Your task to perform on an android device: Open notification settings Image 0: 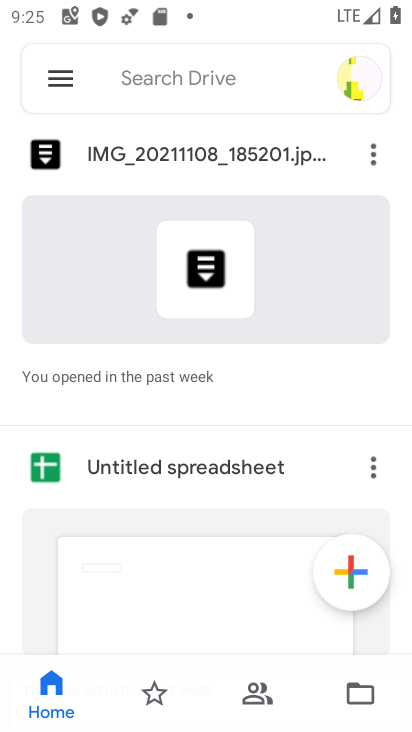
Step 0: press home button
Your task to perform on an android device: Open notification settings Image 1: 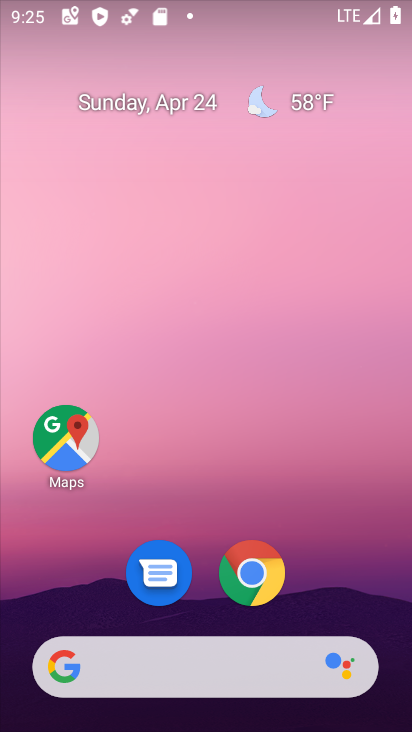
Step 1: drag from (365, 499) to (374, 78)
Your task to perform on an android device: Open notification settings Image 2: 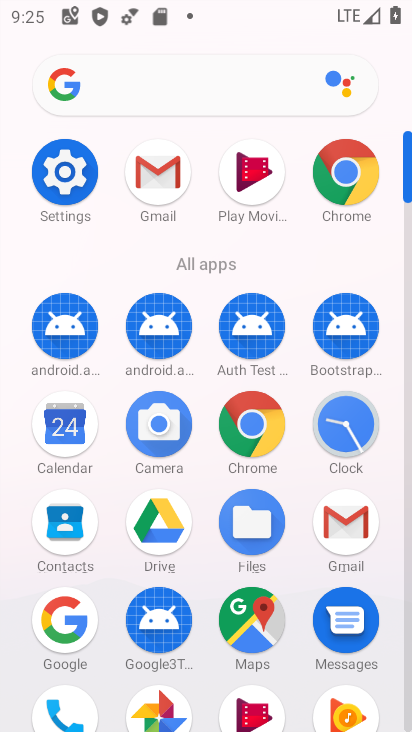
Step 2: drag from (216, 571) to (267, 164)
Your task to perform on an android device: Open notification settings Image 3: 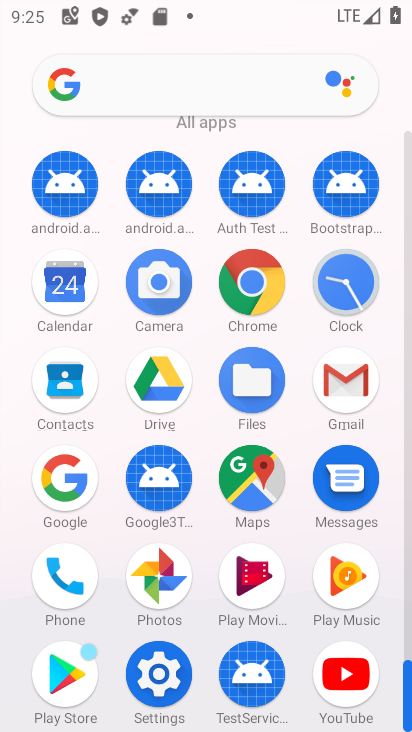
Step 3: click (163, 666)
Your task to perform on an android device: Open notification settings Image 4: 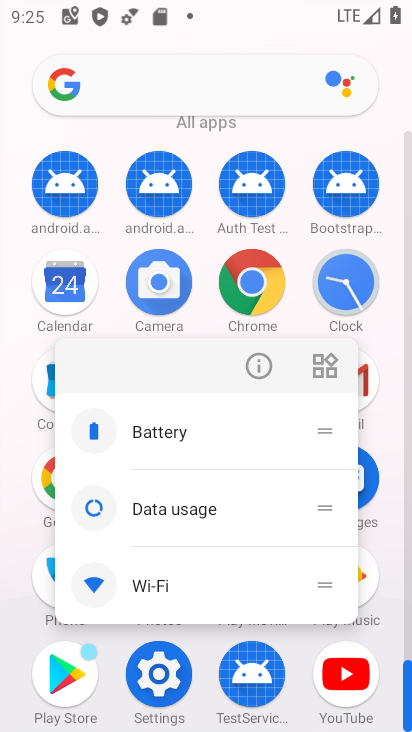
Step 4: click (161, 676)
Your task to perform on an android device: Open notification settings Image 5: 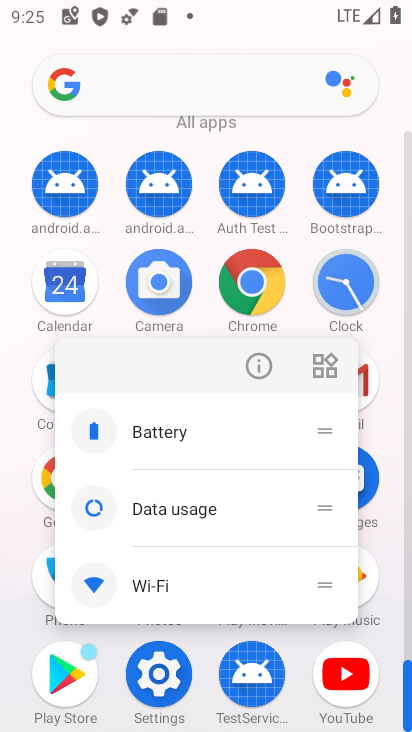
Step 5: click (162, 675)
Your task to perform on an android device: Open notification settings Image 6: 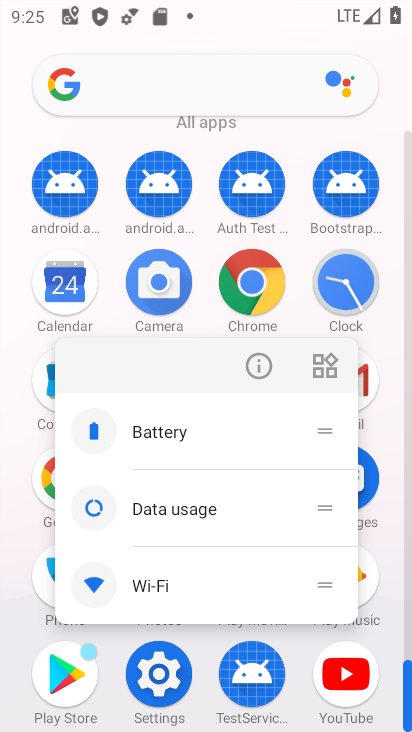
Step 6: click (165, 672)
Your task to perform on an android device: Open notification settings Image 7: 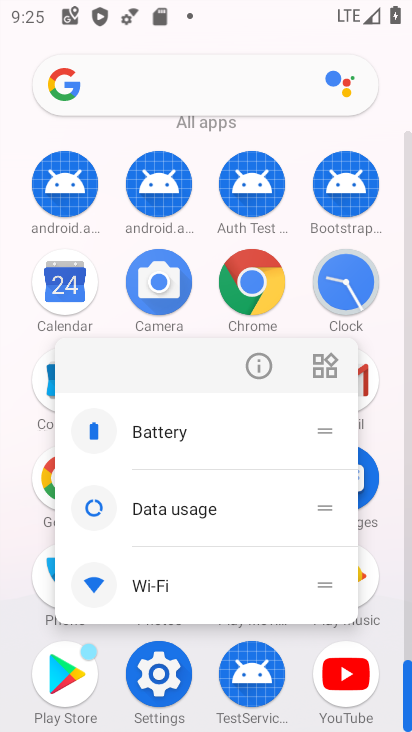
Step 7: click (198, 643)
Your task to perform on an android device: Open notification settings Image 8: 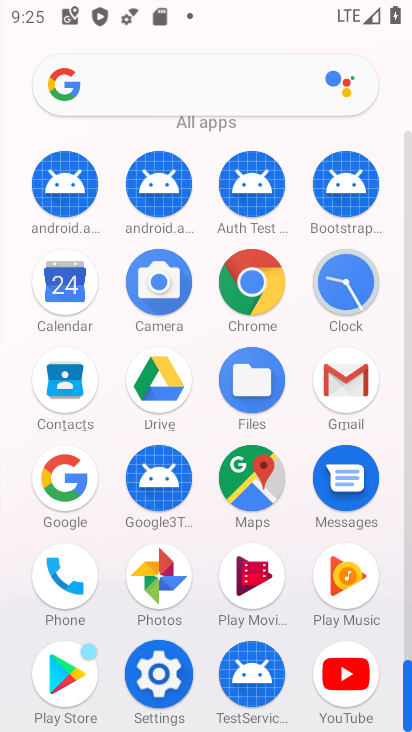
Step 8: click (146, 686)
Your task to perform on an android device: Open notification settings Image 9: 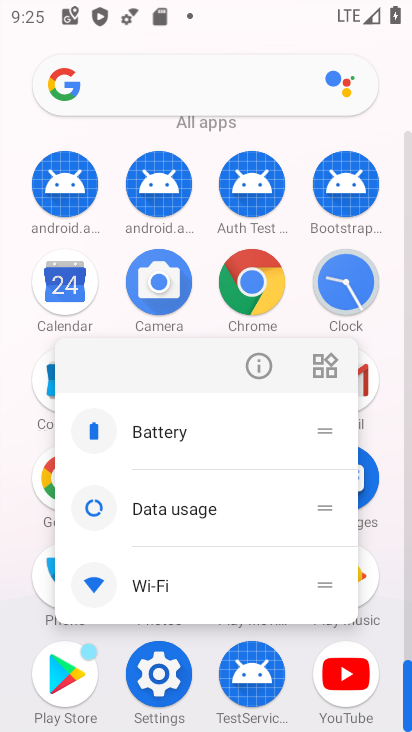
Step 9: click (120, 641)
Your task to perform on an android device: Open notification settings Image 10: 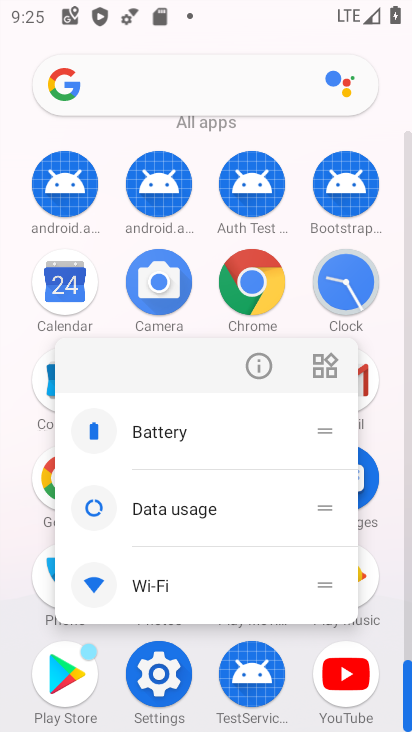
Step 10: click (204, 638)
Your task to perform on an android device: Open notification settings Image 11: 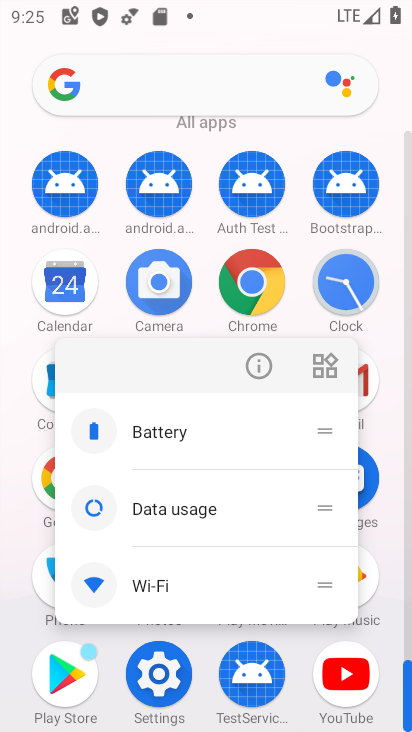
Step 11: click (301, 712)
Your task to perform on an android device: Open notification settings Image 12: 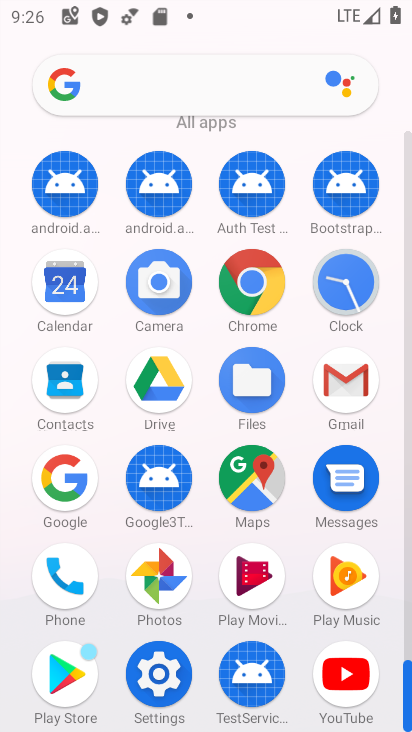
Step 12: click (160, 673)
Your task to perform on an android device: Open notification settings Image 13: 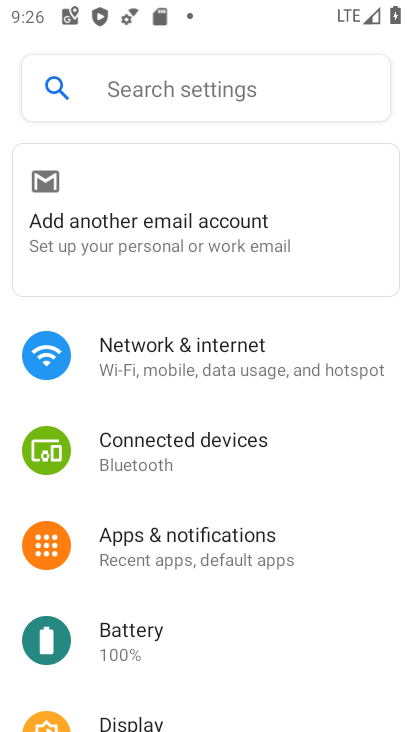
Step 13: click (186, 542)
Your task to perform on an android device: Open notification settings Image 14: 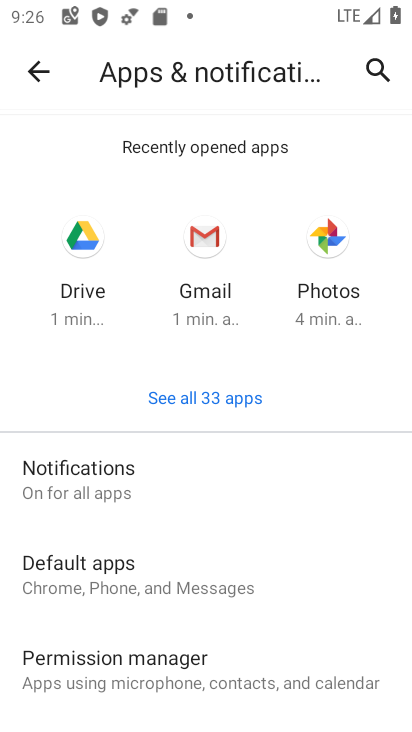
Step 14: click (91, 478)
Your task to perform on an android device: Open notification settings Image 15: 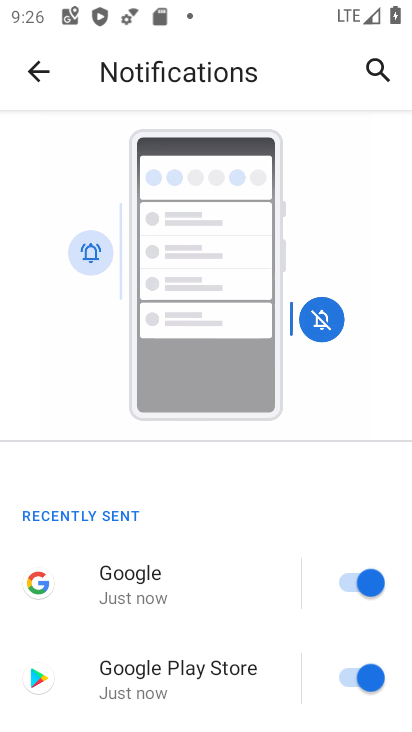
Step 15: task complete